Your task to perform on an android device: Search for amazon basics triple a on costco, select the first entry, add it to the cart, then select checkout. Image 0: 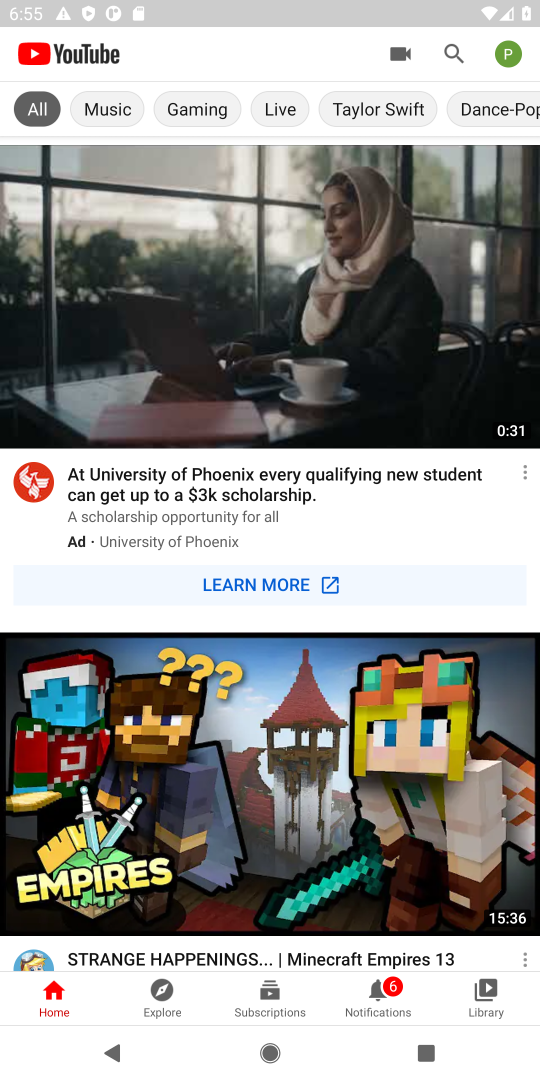
Step 0: task complete